Your task to perform on an android device: uninstall "Google Sheets" Image 0: 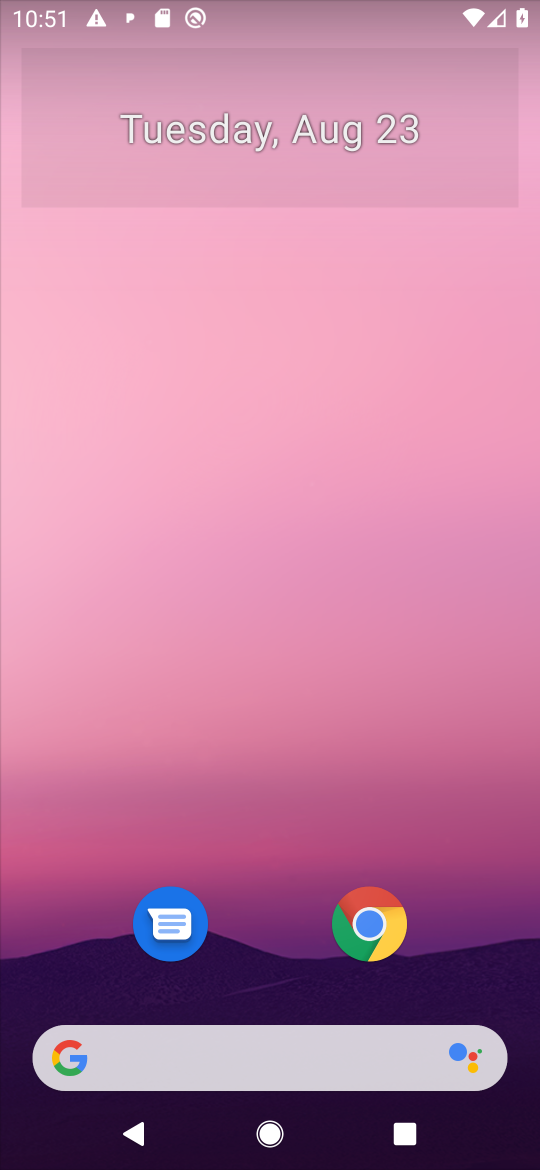
Step 0: press home button
Your task to perform on an android device: uninstall "Google Sheets" Image 1: 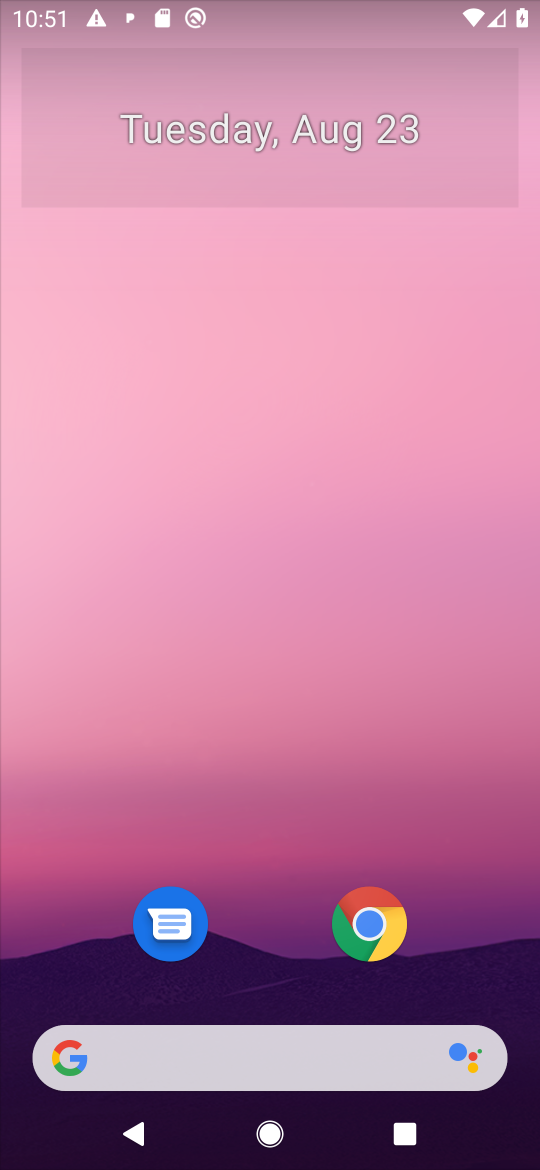
Step 1: drag from (488, 950) to (444, 215)
Your task to perform on an android device: uninstall "Google Sheets" Image 2: 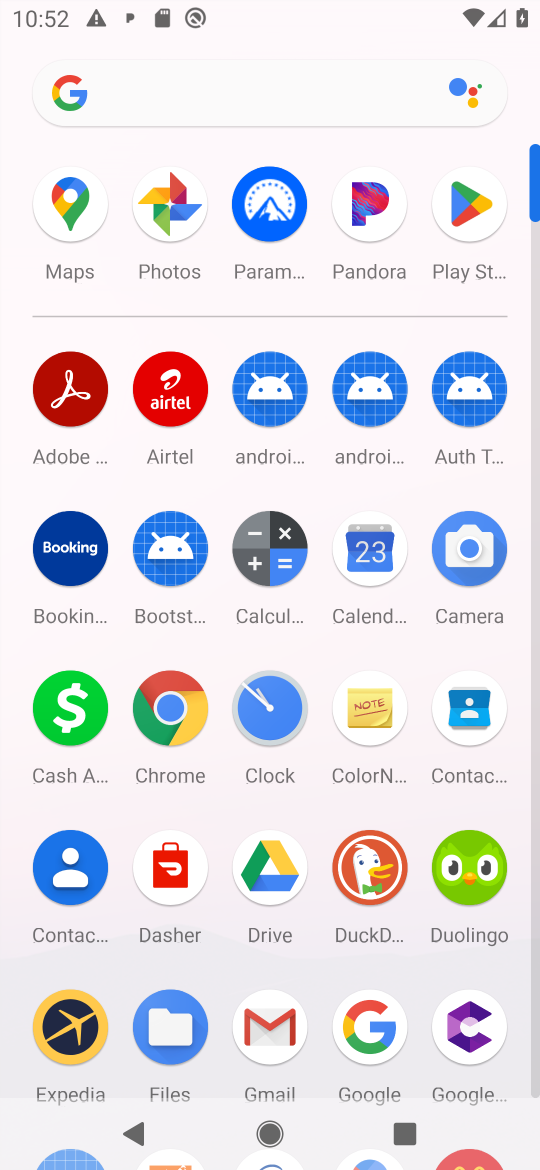
Step 2: click (475, 206)
Your task to perform on an android device: uninstall "Google Sheets" Image 3: 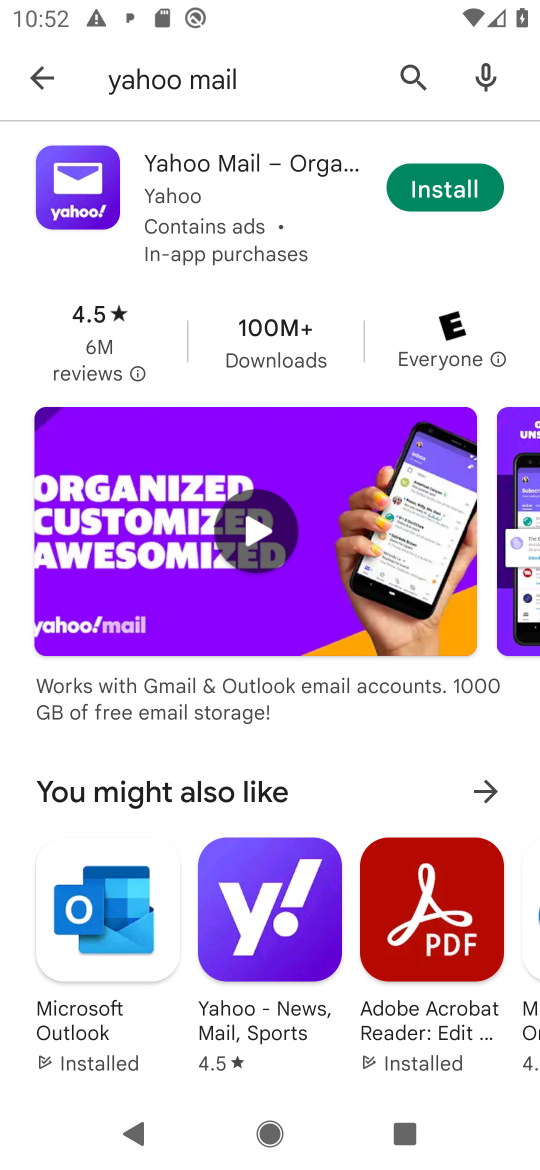
Step 3: press back button
Your task to perform on an android device: uninstall "Google Sheets" Image 4: 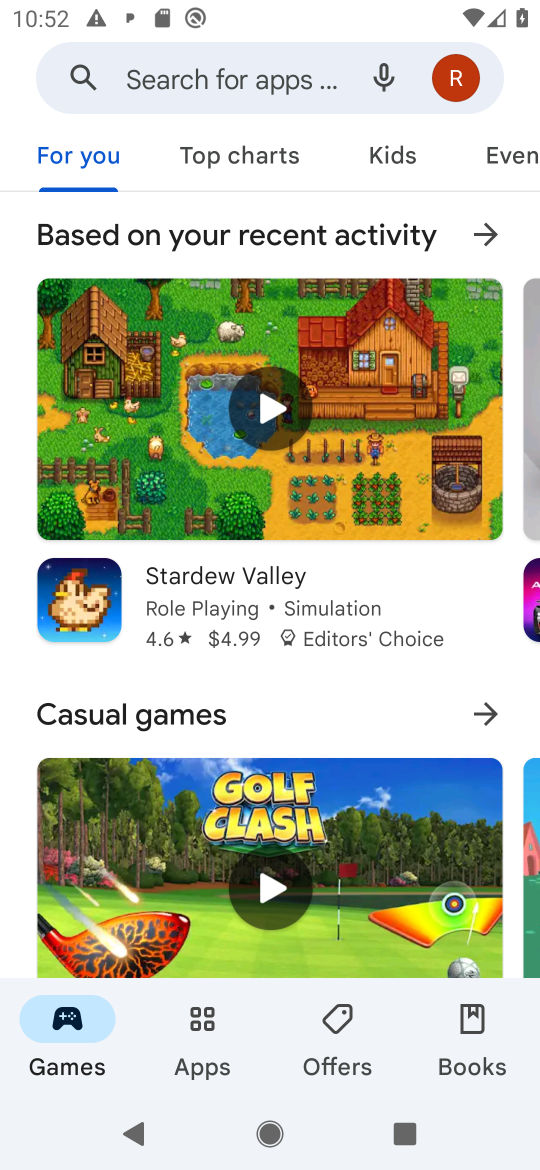
Step 4: click (281, 86)
Your task to perform on an android device: uninstall "Google Sheets" Image 5: 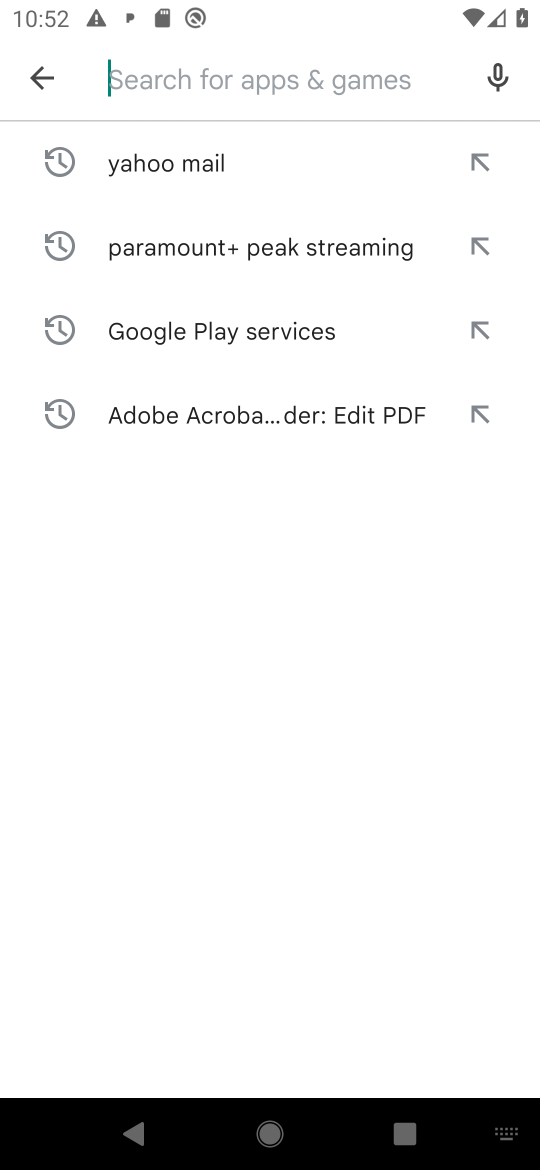
Step 5: type "google sheets"
Your task to perform on an android device: uninstall "Google Sheets" Image 6: 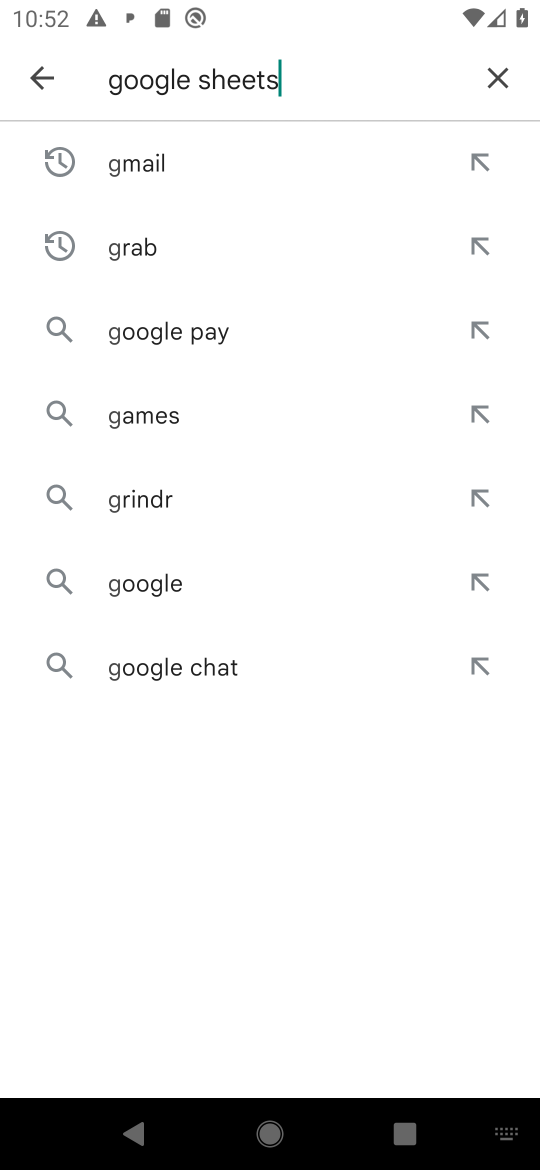
Step 6: press enter
Your task to perform on an android device: uninstall "Google Sheets" Image 7: 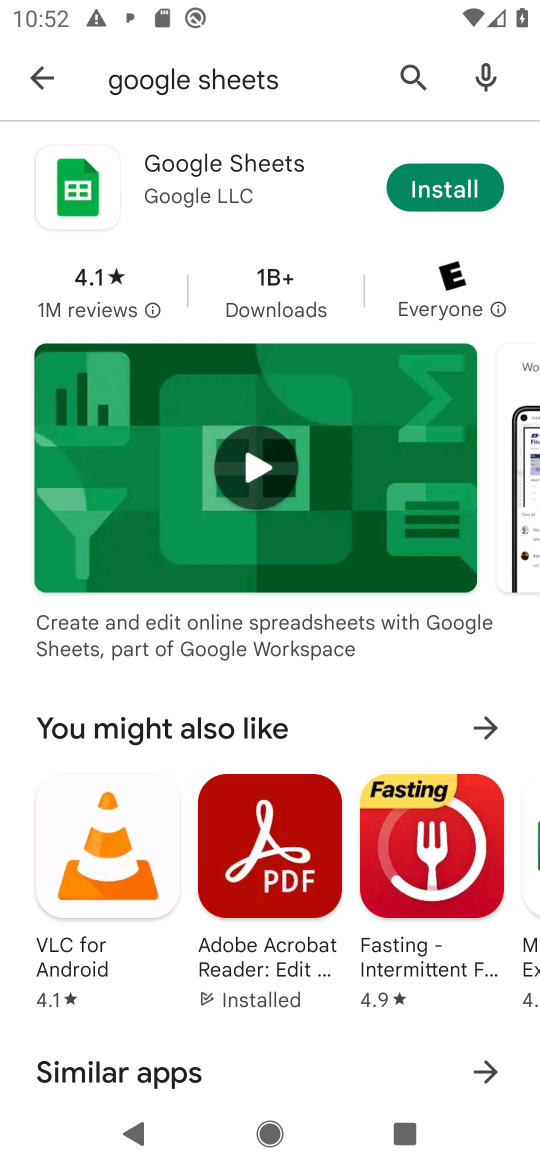
Step 7: task complete